Your task to perform on an android device: turn off javascript in the chrome app Image 0: 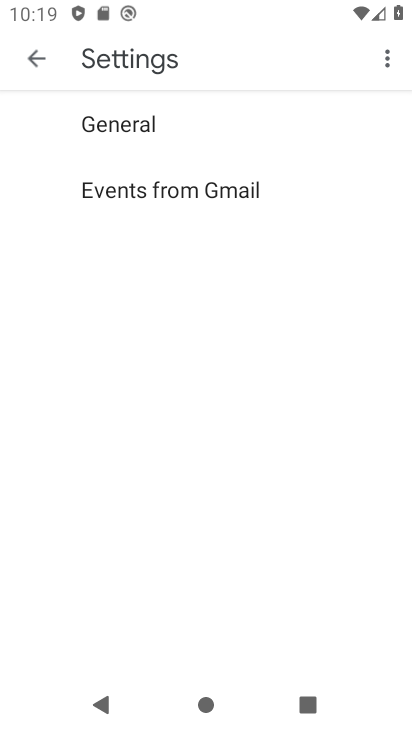
Step 0: press home button
Your task to perform on an android device: turn off javascript in the chrome app Image 1: 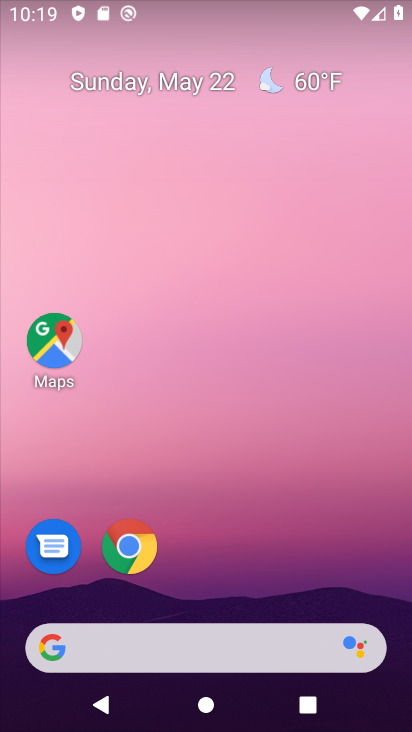
Step 1: click (133, 546)
Your task to perform on an android device: turn off javascript in the chrome app Image 2: 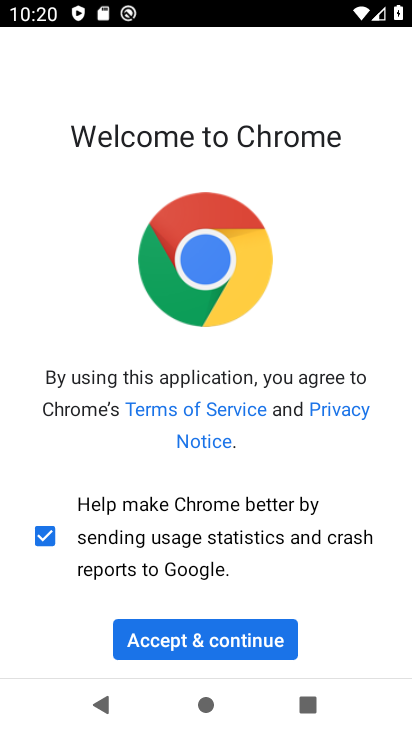
Step 2: click (197, 648)
Your task to perform on an android device: turn off javascript in the chrome app Image 3: 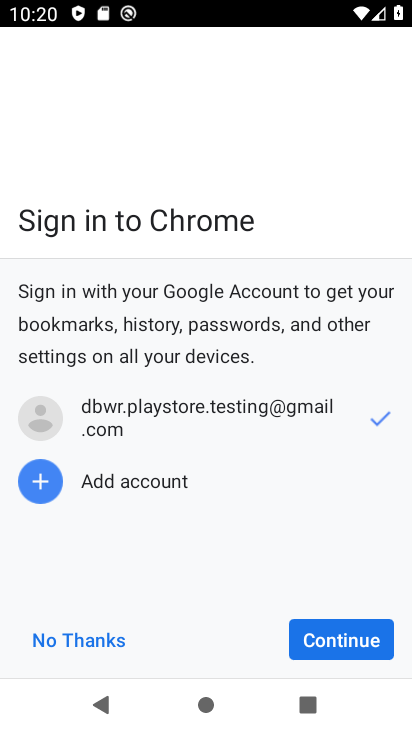
Step 3: click (332, 637)
Your task to perform on an android device: turn off javascript in the chrome app Image 4: 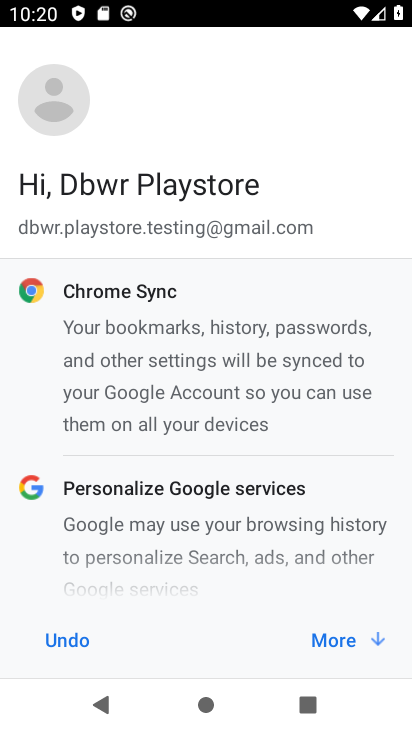
Step 4: click (332, 637)
Your task to perform on an android device: turn off javascript in the chrome app Image 5: 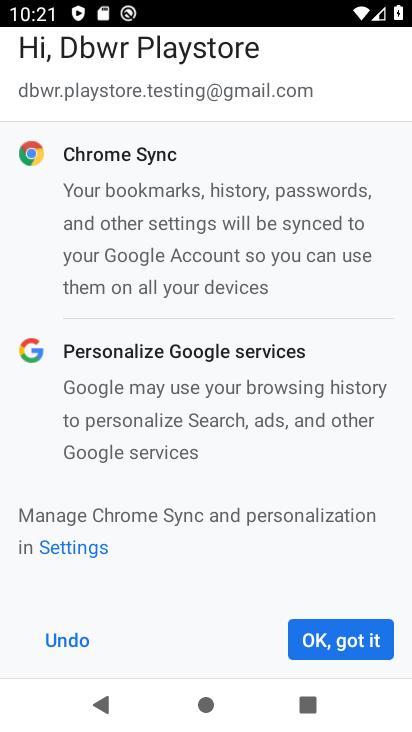
Step 5: click (332, 637)
Your task to perform on an android device: turn off javascript in the chrome app Image 6: 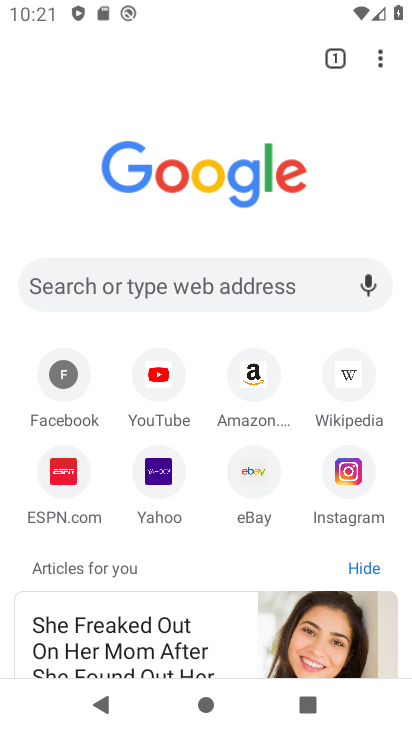
Step 6: click (378, 63)
Your task to perform on an android device: turn off javascript in the chrome app Image 7: 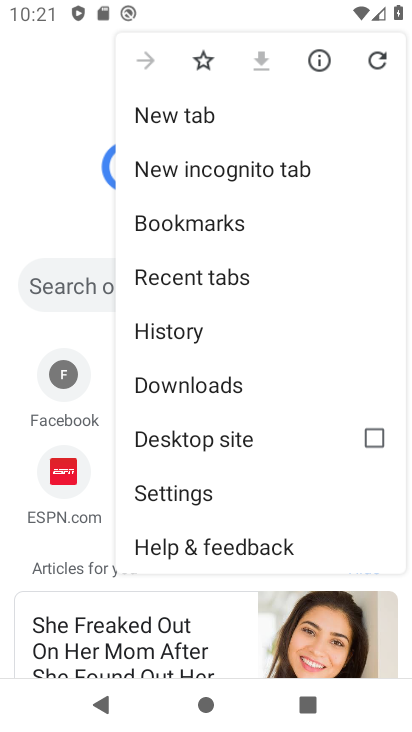
Step 7: click (167, 495)
Your task to perform on an android device: turn off javascript in the chrome app Image 8: 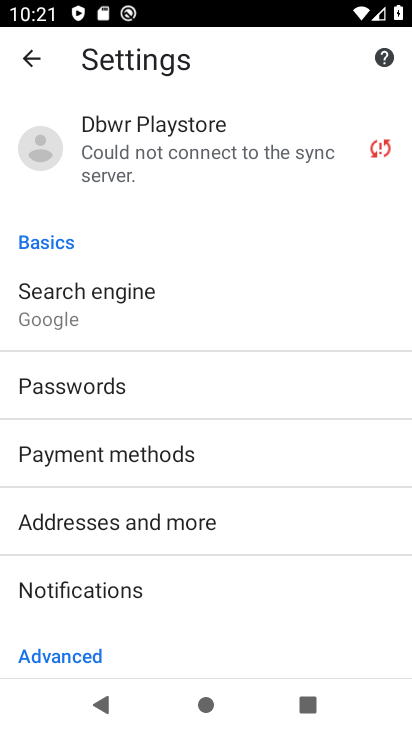
Step 8: drag from (151, 643) to (151, 214)
Your task to perform on an android device: turn off javascript in the chrome app Image 9: 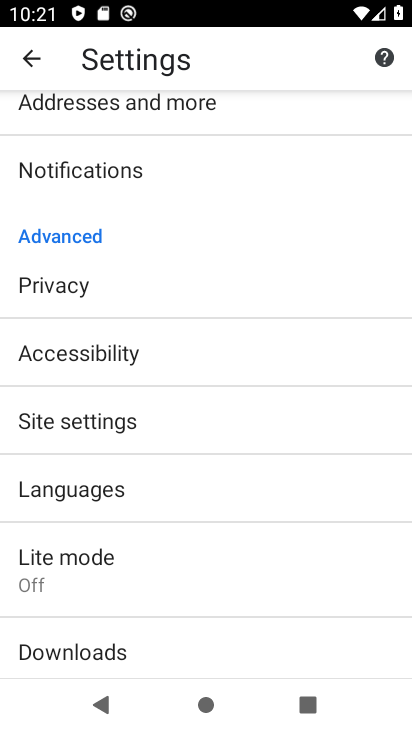
Step 9: click (82, 415)
Your task to perform on an android device: turn off javascript in the chrome app Image 10: 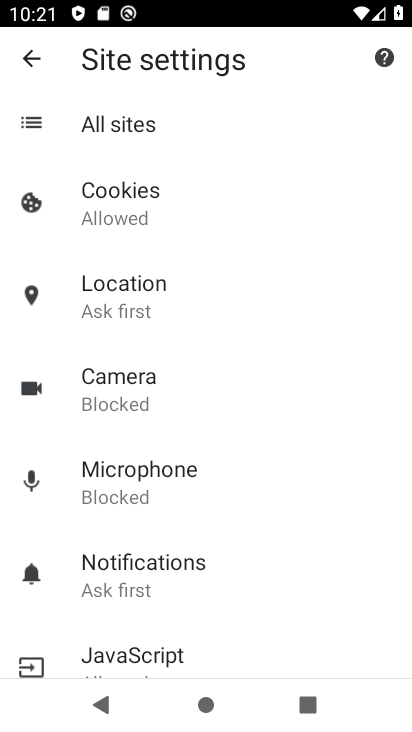
Step 10: click (126, 662)
Your task to perform on an android device: turn off javascript in the chrome app Image 11: 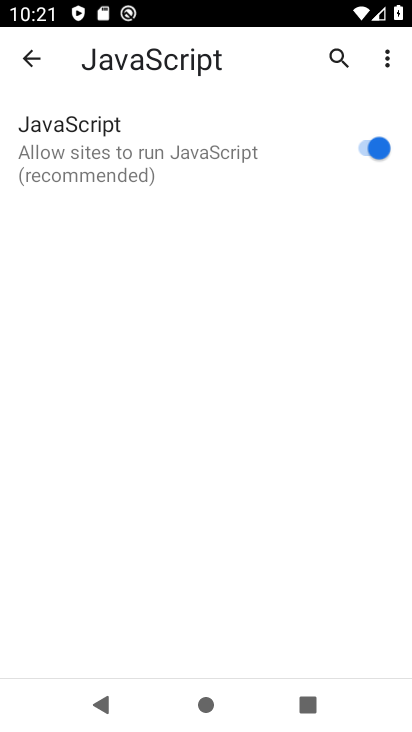
Step 11: click (361, 147)
Your task to perform on an android device: turn off javascript in the chrome app Image 12: 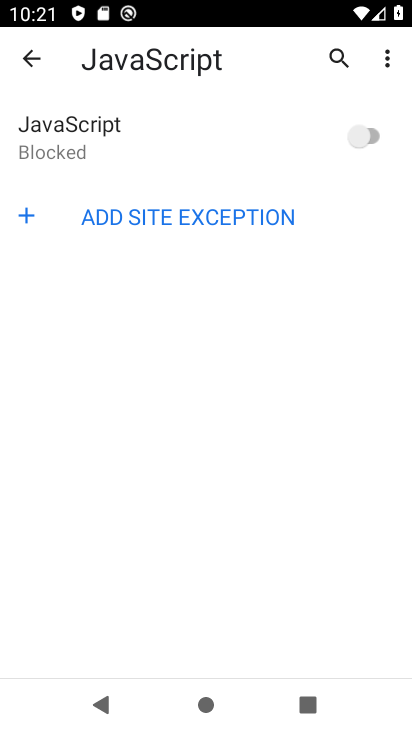
Step 12: task complete